Your task to perform on an android device: toggle translation in the chrome app Image 0: 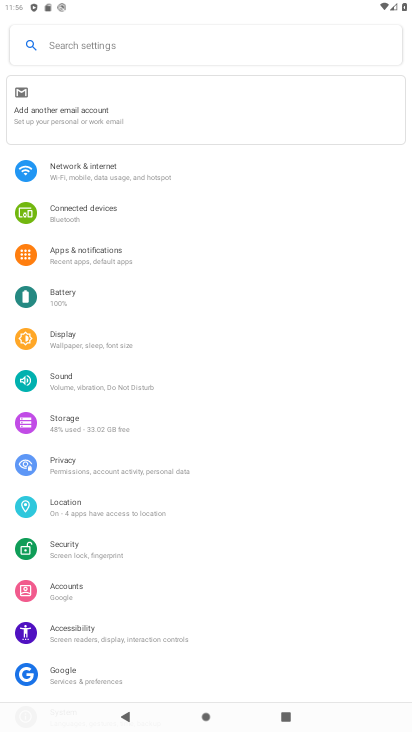
Step 0: press back button
Your task to perform on an android device: toggle translation in the chrome app Image 1: 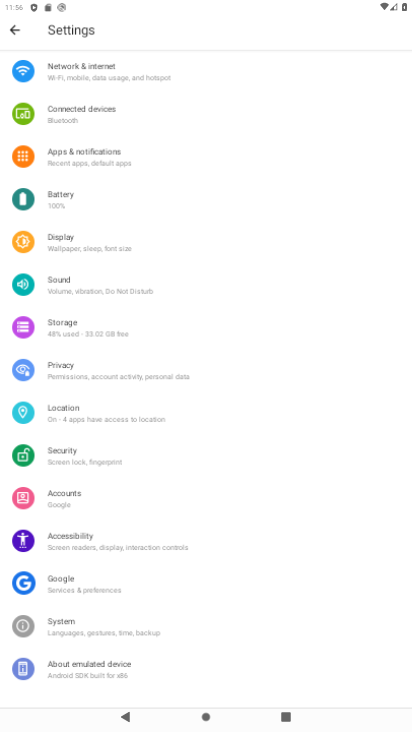
Step 1: press back button
Your task to perform on an android device: toggle translation in the chrome app Image 2: 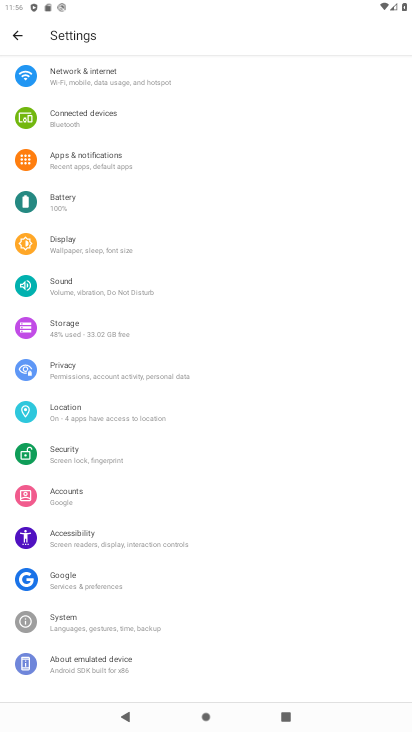
Step 2: press back button
Your task to perform on an android device: toggle translation in the chrome app Image 3: 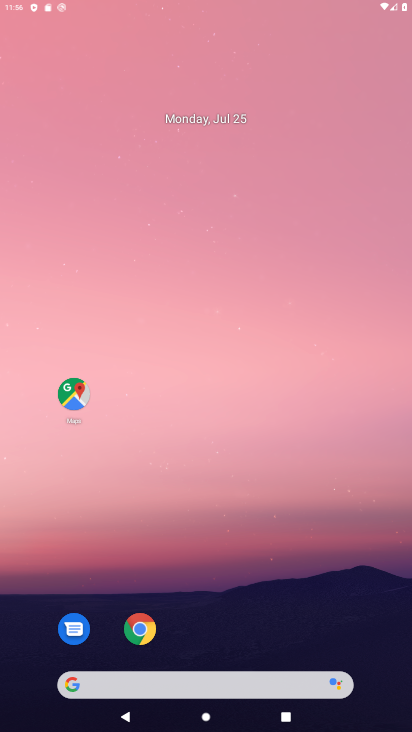
Step 3: press back button
Your task to perform on an android device: toggle translation in the chrome app Image 4: 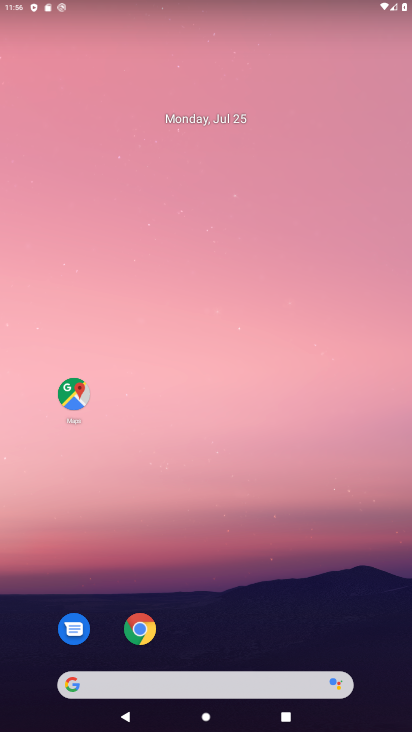
Step 4: drag from (237, 661) to (157, 79)
Your task to perform on an android device: toggle translation in the chrome app Image 5: 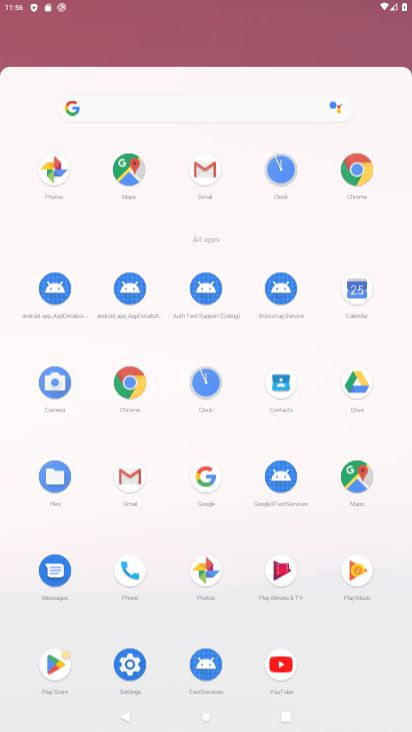
Step 5: drag from (174, 271) to (121, 34)
Your task to perform on an android device: toggle translation in the chrome app Image 6: 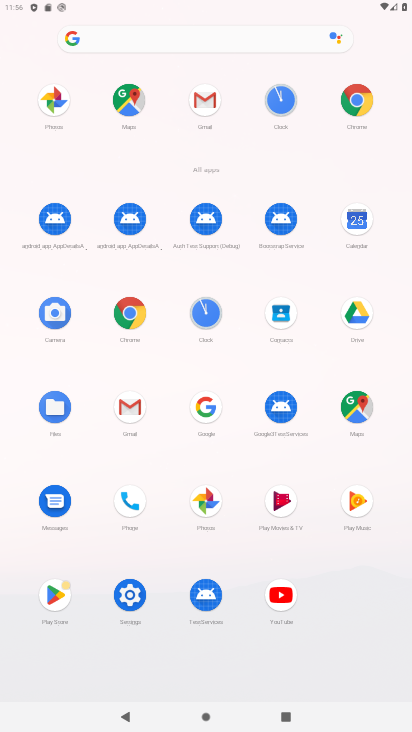
Step 6: drag from (176, 437) to (195, 249)
Your task to perform on an android device: toggle translation in the chrome app Image 7: 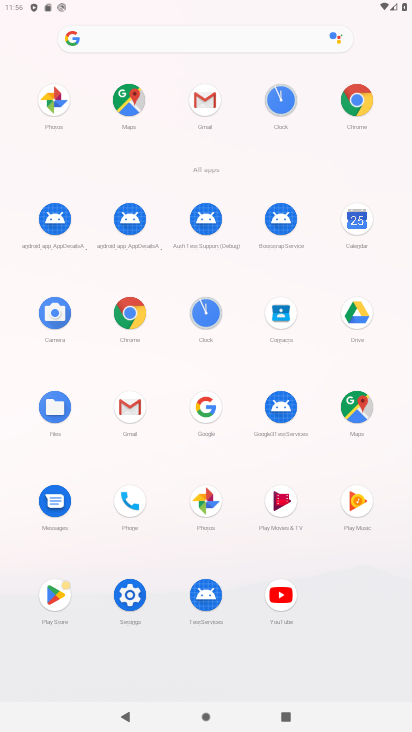
Step 7: click (362, 110)
Your task to perform on an android device: toggle translation in the chrome app Image 8: 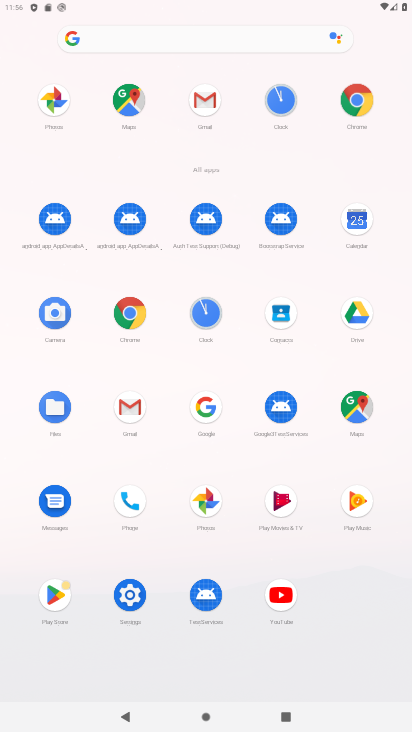
Step 8: click (361, 106)
Your task to perform on an android device: toggle translation in the chrome app Image 9: 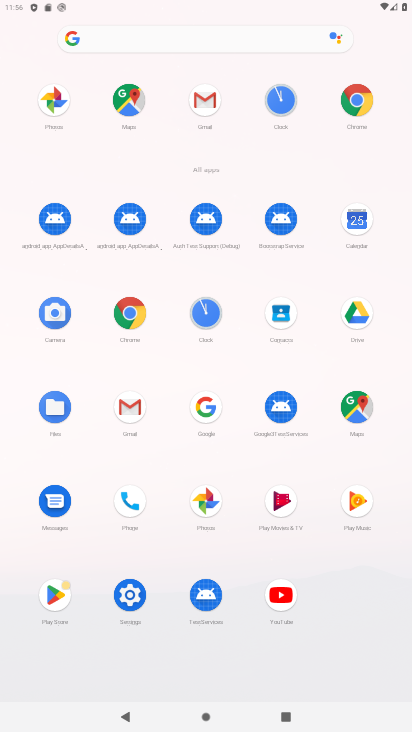
Step 9: click (367, 103)
Your task to perform on an android device: toggle translation in the chrome app Image 10: 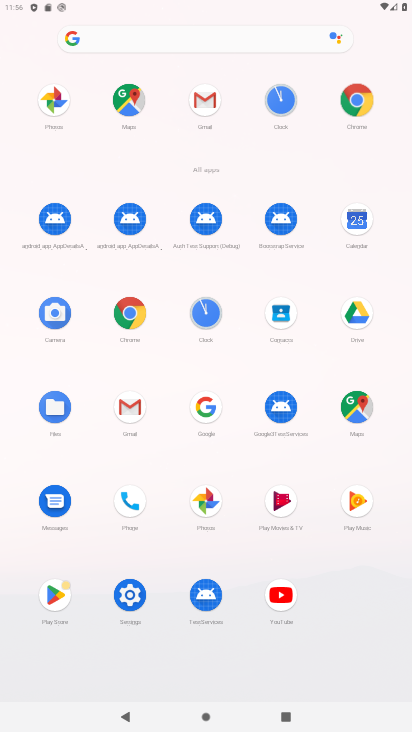
Step 10: click (354, 105)
Your task to perform on an android device: toggle translation in the chrome app Image 11: 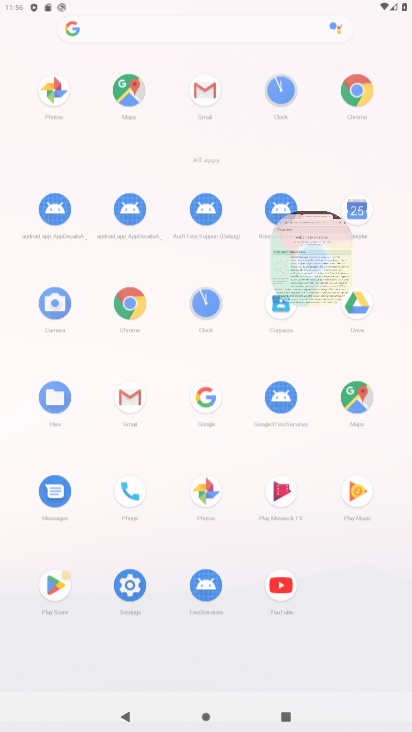
Step 11: click (353, 104)
Your task to perform on an android device: toggle translation in the chrome app Image 12: 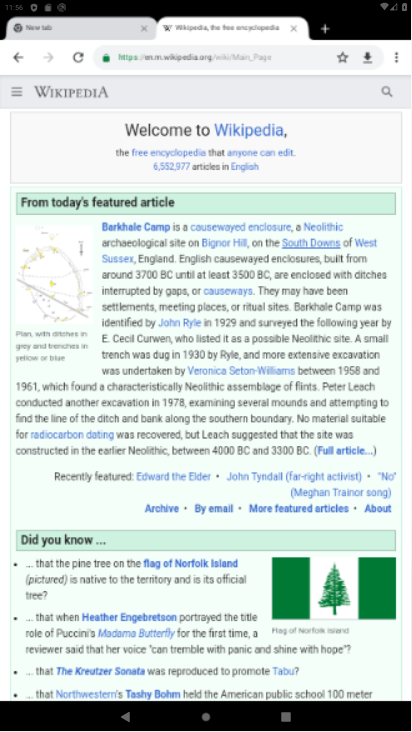
Step 12: click (354, 102)
Your task to perform on an android device: toggle translation in the chrome app Image 13: 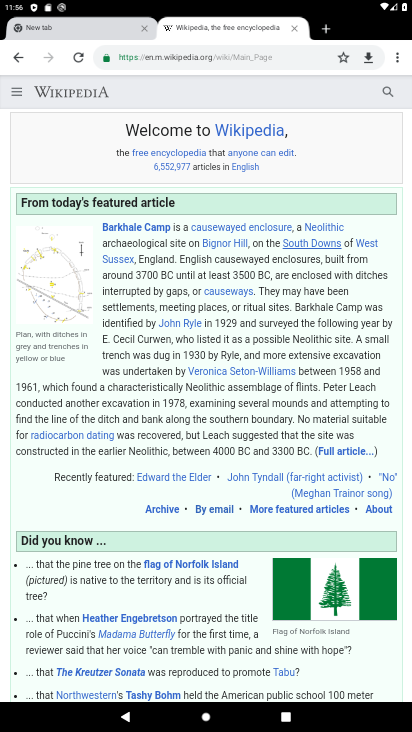
Step 13: drag from (206, 361) to (183, 95)
Your task to perform on an android device: toggle translation in the chrome app Image 14: 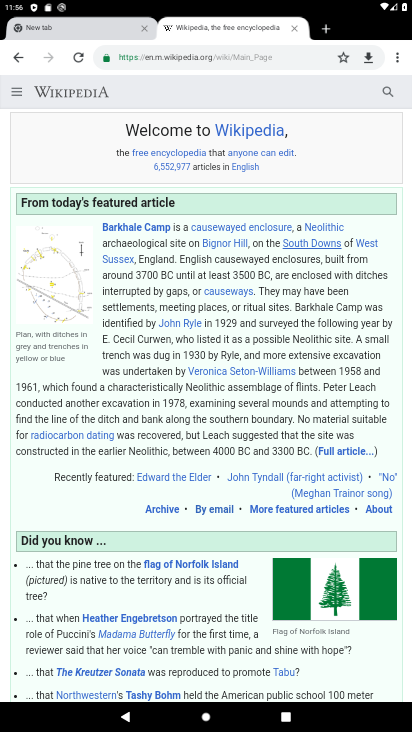
Step 14: drag from (221, 364) to (221, 169)
Your task to perform on an android device: toggle translation in the chrome app Image 15: 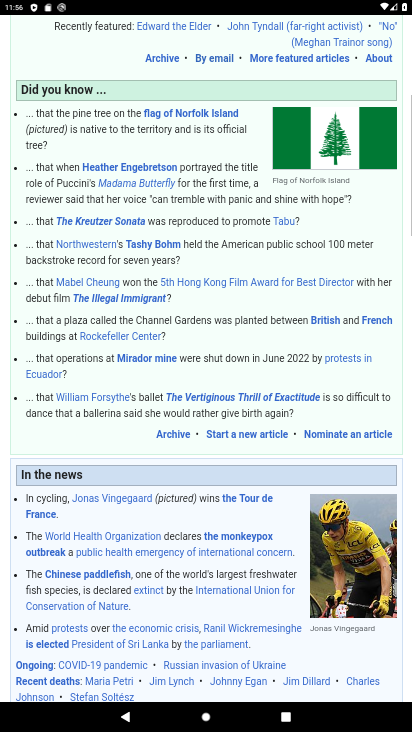
Step 15: drag from (263, 450) to (236, 91)
Your task to perform on an android device: toggle translation in the chrome app Image 16: 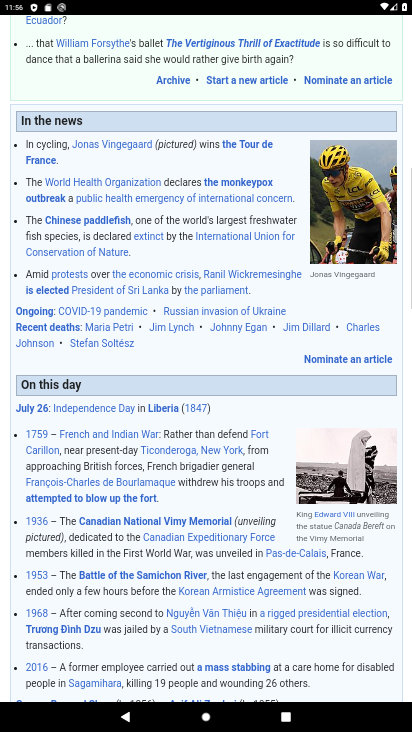
Step 16: drag from (262, 128) to (305, 419)
Your task to perform on an android device: toggle translation in the chrome app Image 17: 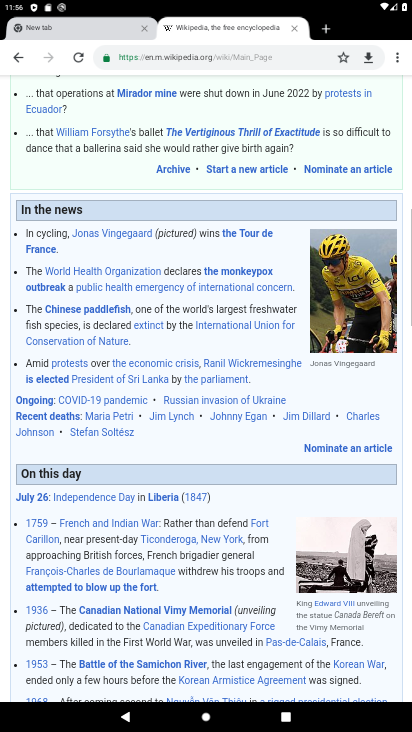
Step 17: drag from (256, 247) to (286, 464)
Your task to perform on an android device: toggle translation in the chrome app Image 18: 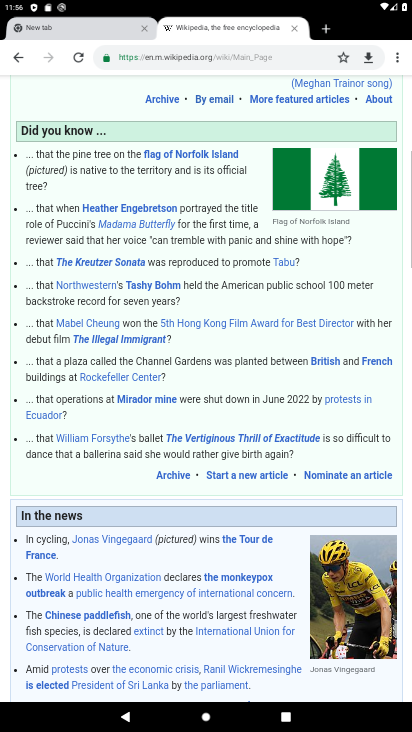
Step 18: drag from (220, 58) to (250, 478)
Your task to perform on an android device: toggle translation in the chrome app Image 19: 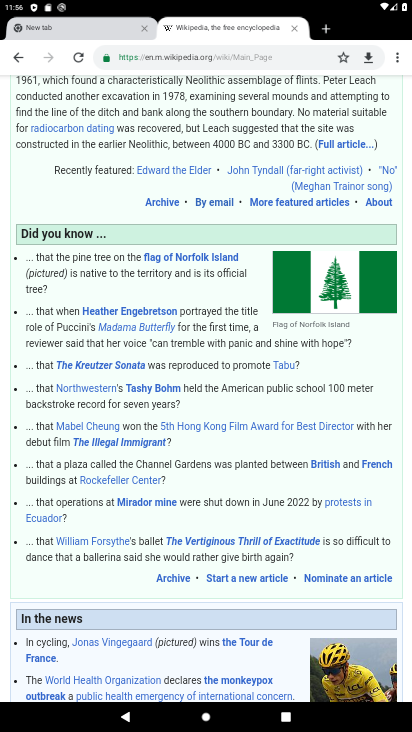
Step 19: click (397, 54)
Your task to perform on an android device: toggle translation in the chrome app Image 20: 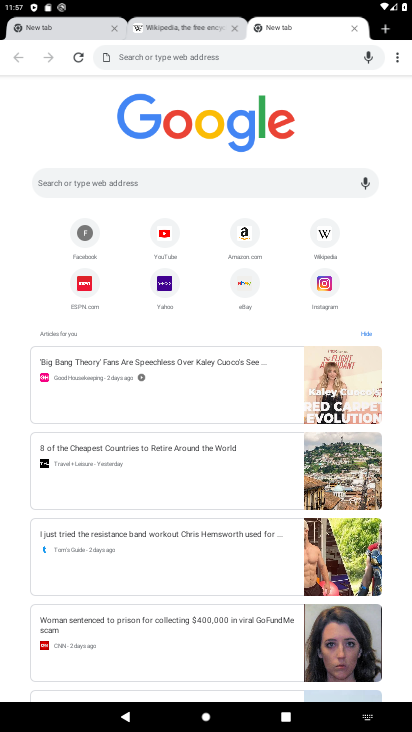
Step 20: click (396, 58)
Your task to perform on an android device: toggle translation in the chrome app Image 21: 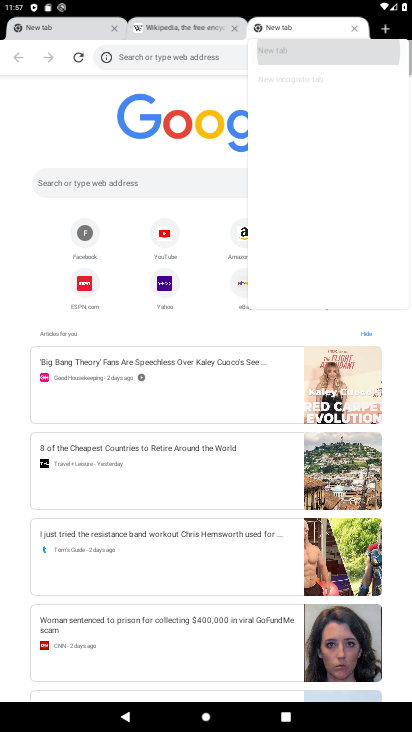
Step 21: click (394, 58)
Your task to perform on an android device: toggle translation in the chrome app Image 22: 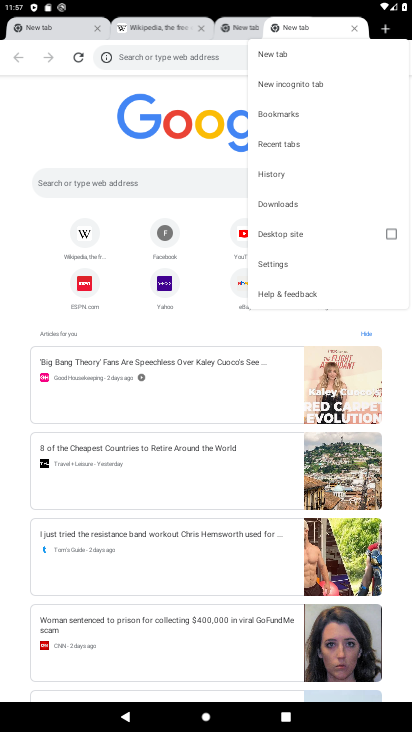
Step 22: drag from (384, 82) to (270, 259)
Your task to perform on an android device: toggle translation in the chrome app Image 23: 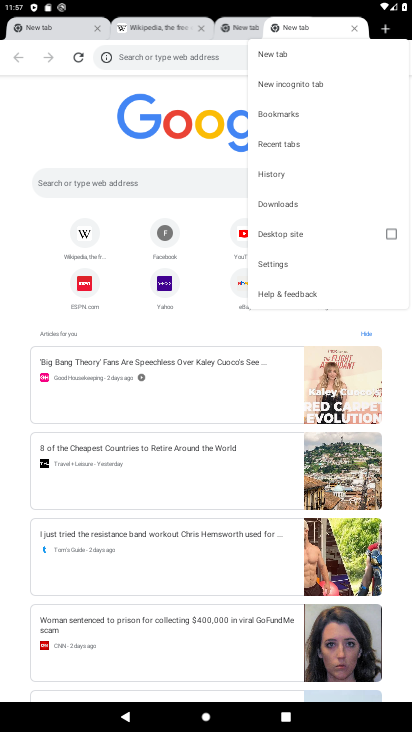
Step 23: click (270, 259)
Your task to perform on an android device: toggle translation in the chrome app Image 24: 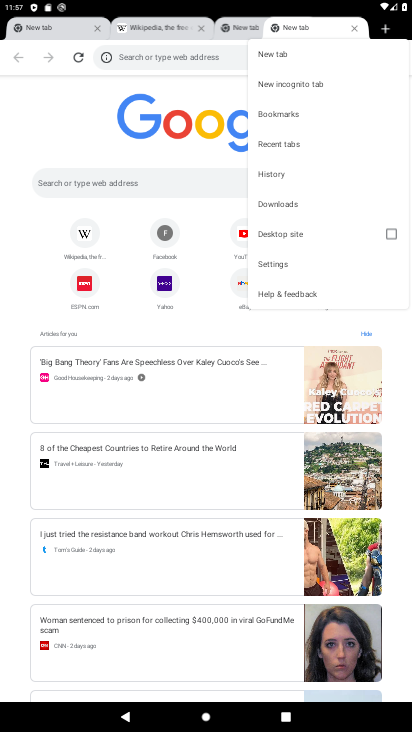
Step 24: click (270, 259)
Your task to perform on an android device: toggle translation in the chrome app Image 25: 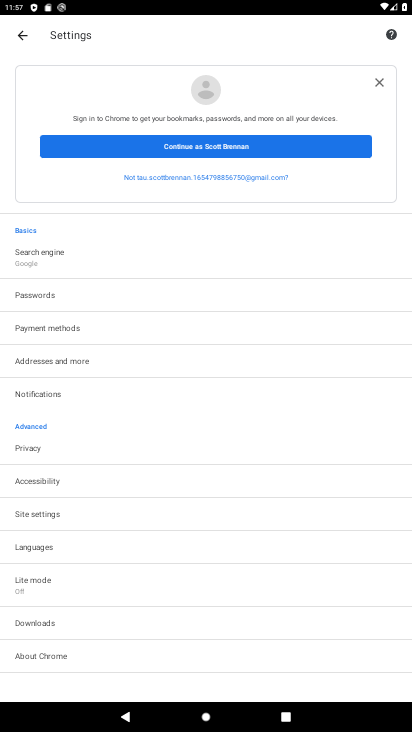
Step 25: click (53, 545)
Your task to perform on an android device: toggle translation in the chrome app Image 26: 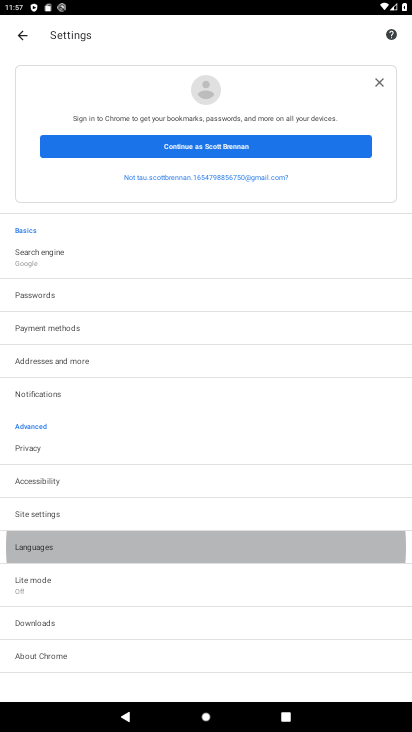
Step 26: click (56, 545)
Your task to perform on an android device: toggle translation in the chrome app Image 27: 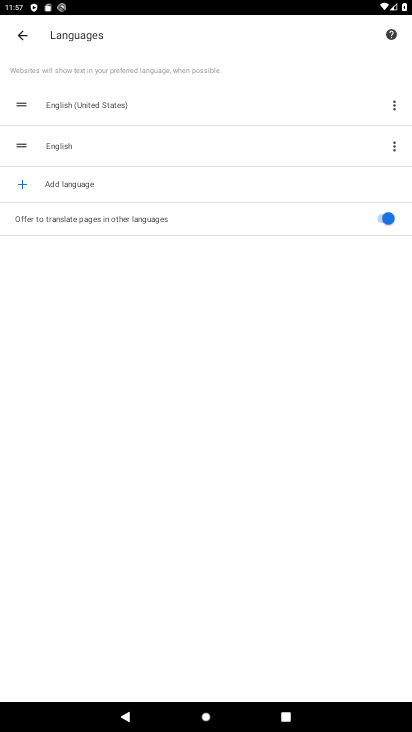
Step 27: click (387, 215)
Your task to perform on an android device: toggle translation in the chrome app Image 28: 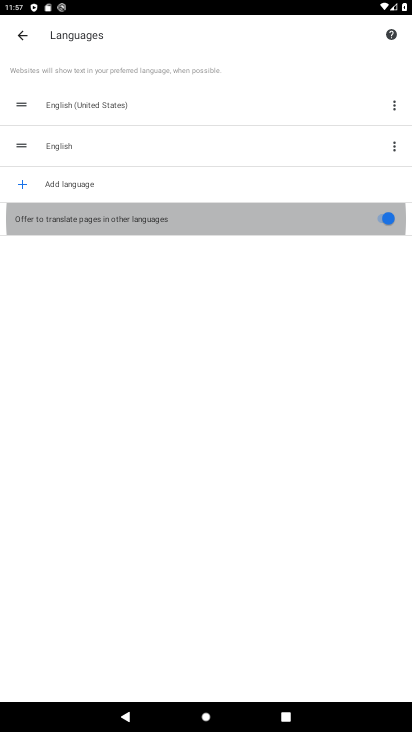
Step 28: click (387, 215)
Your task to perform on an android device: toggle translation in the chrome app Image 29: 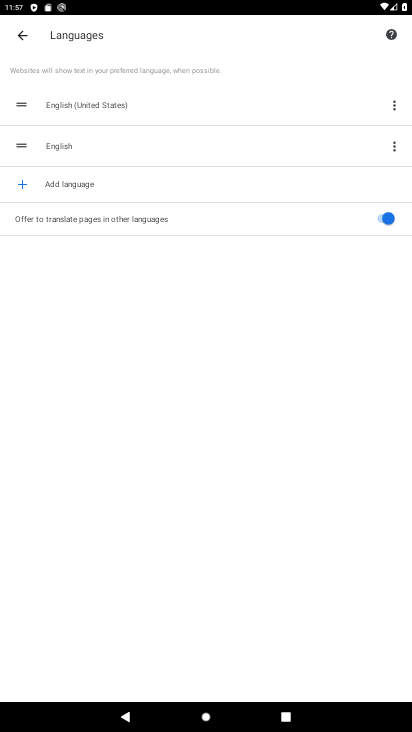
Step 29: click (388, 217)
Your task to perform on an android device: toggle translation in the chrome app Image 30: 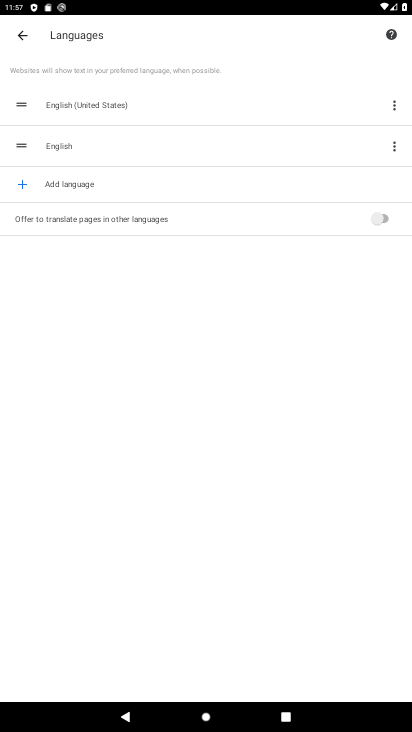
Step 30: task complete